Your task to perform on an android device: Turn off the flashlight Image 0: 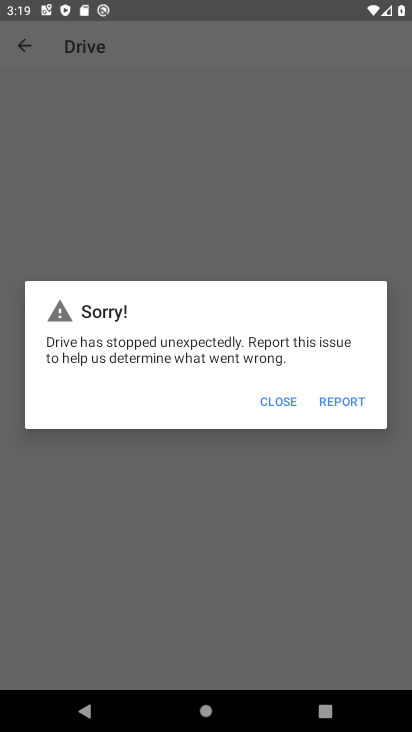
Step 0: press home button
Your task to perform on an android device: Turn off the flashlight Image 1: 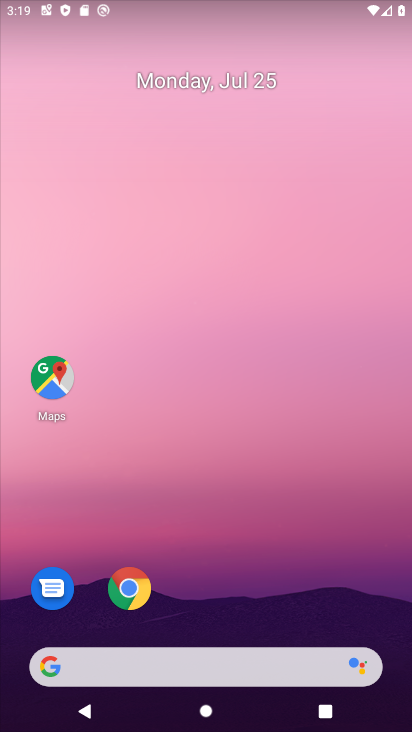
Step 1: drag from (198, 601) to (212, 275)
Your task to perform on an android device: Turn off the flashlight Image 2: 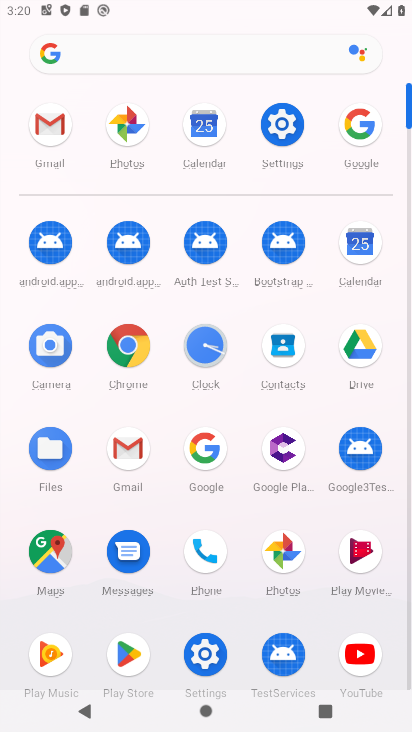
Step 2: click (283, 110)
Your task to perform on an android device: Turn off the flashlight Image 3: 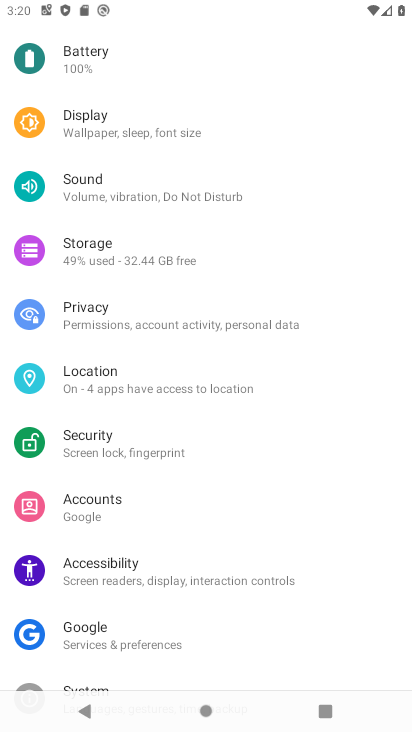
Step 3: task complete